Your task to perform on an android device: Search for "usb-c" on walmart.com, select the first entry, and add it to the cart. Image 0: 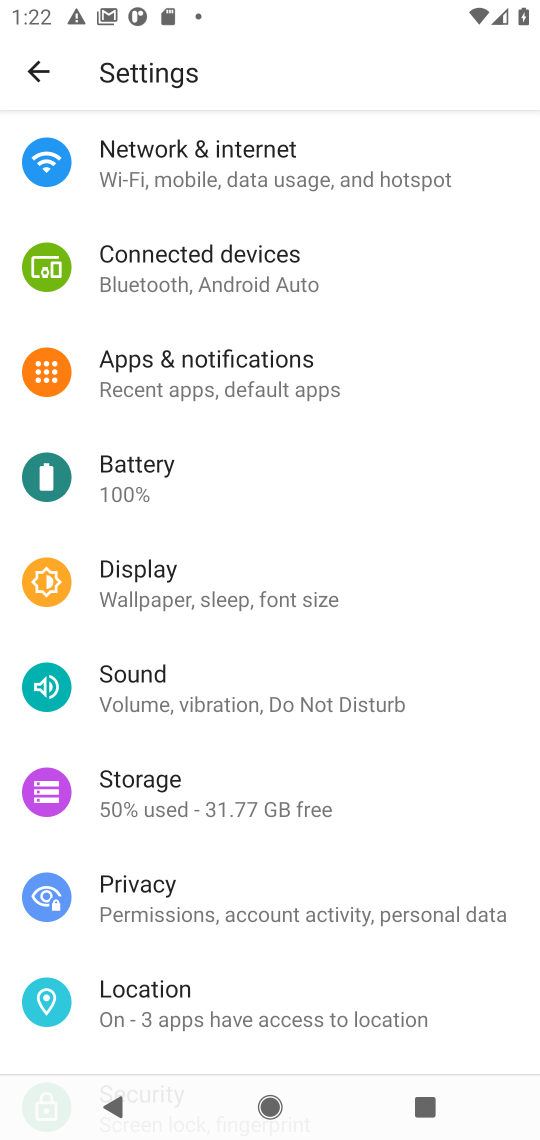
Step 0: press home button
Your task to perform on an android device: Search for "usb-c" on walmart.com, select the first entry, and add it to the cart. Image 1: 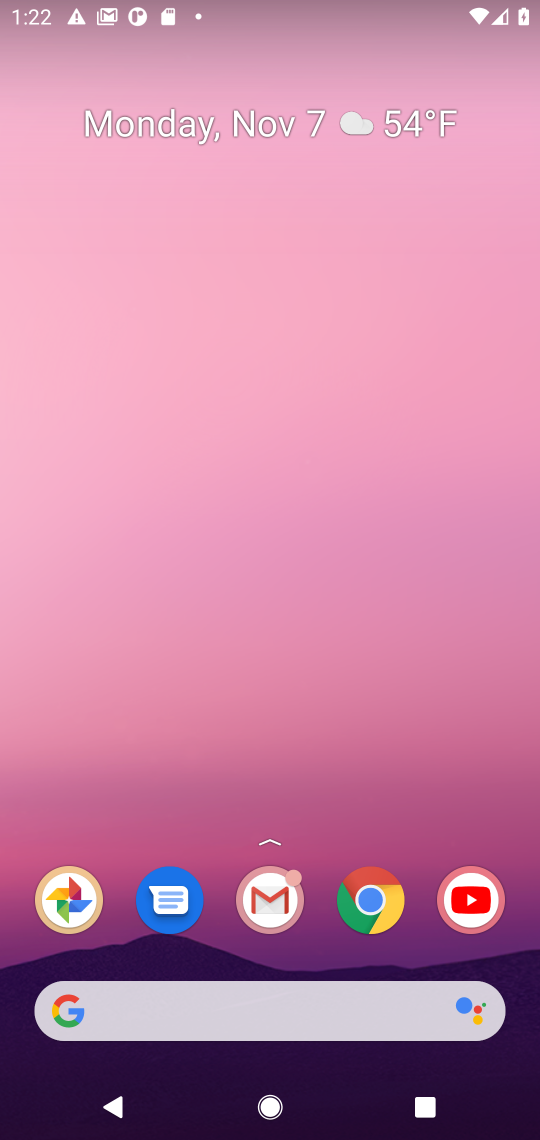
Step 1: click (239, 1021)
Your task to perform on an android device: Search for "usb-c" on walmart.com, select the first entry, and add it to the cart. Image 2: 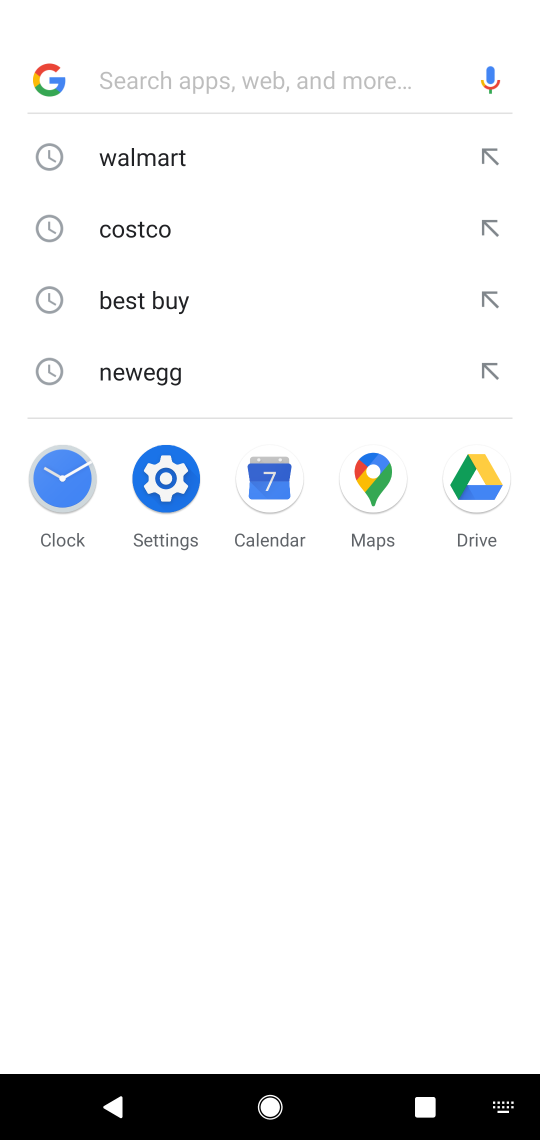
Step 2: type "walmart"
Your task to perform on an android device: Search for "usb-c" on walmart.com, select the first entry, and add it to the cart. Image 3: 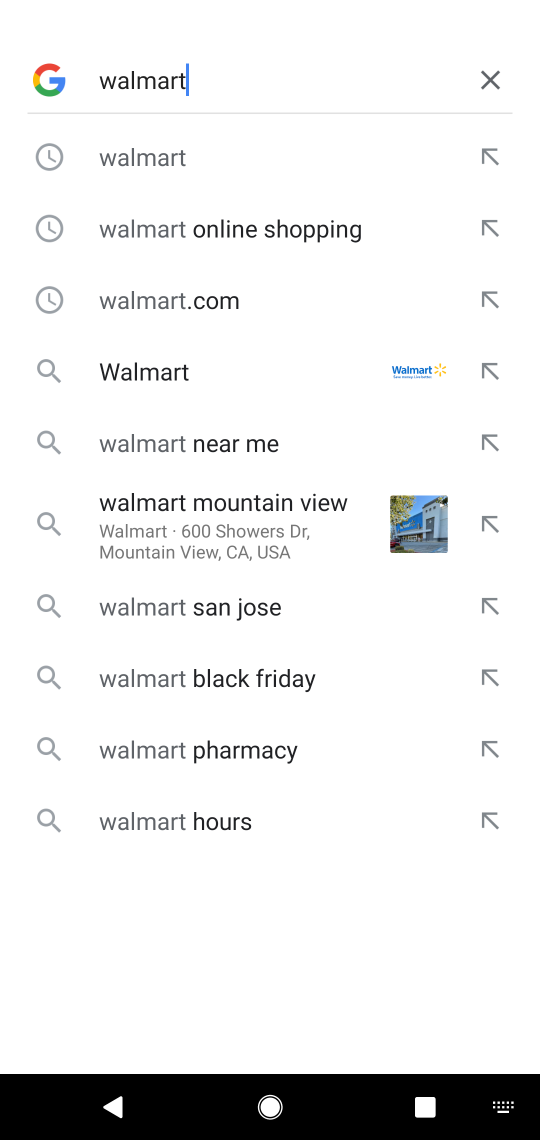
Step 3: click (241, 166)
Your task to perform on an android device: Search for "usb-c" on walmart.com, select the first entry, and add it to the cart. Image 4: 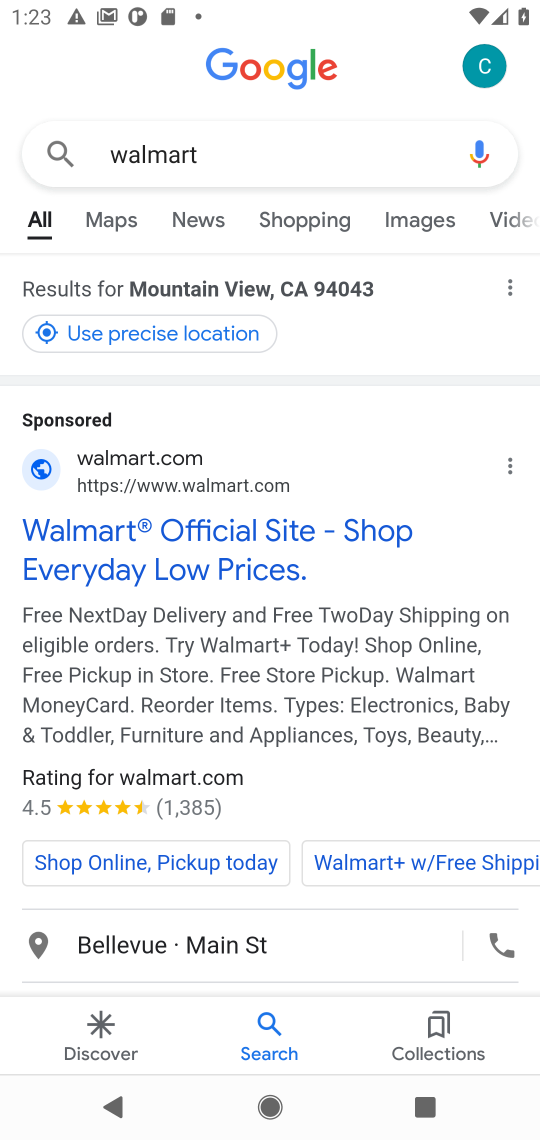
Step 4: click (213, 533)
Your task to perform on an android device: Search for "usb-c" on walmart.com, select the first entry, and add it to the cart. Image 5: 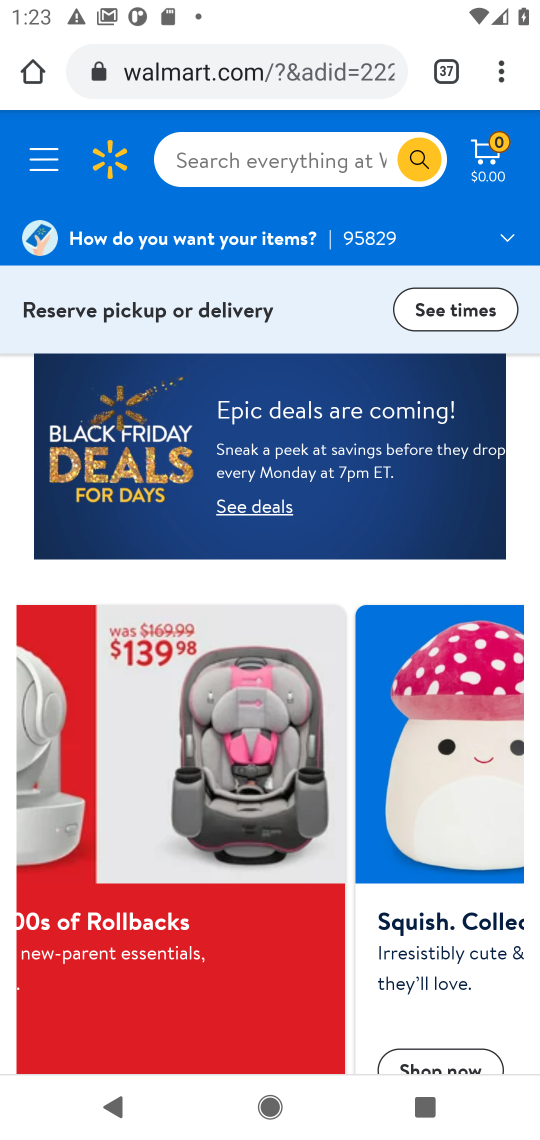
Step 5: task complete